Your task to perform on an android device: What is the recent news? Image 0: 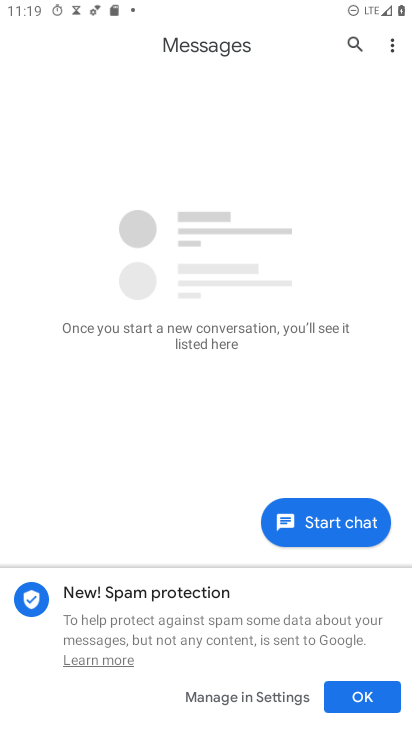
Step 0: press home button
Your task to perform on an android device: What is the recent news? Image 1: 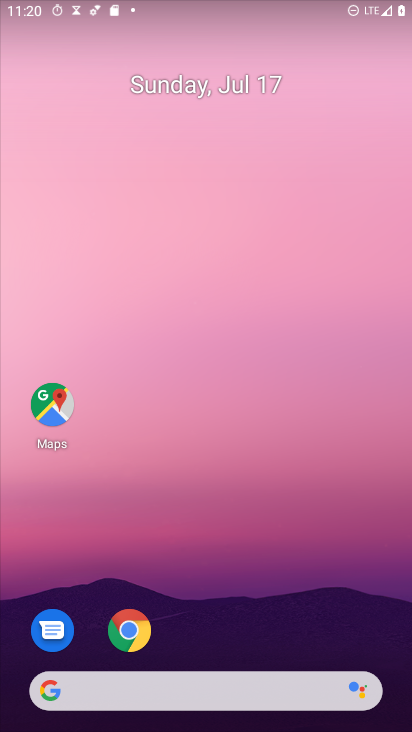
Step 1: drag from (152, 701) to (344, 2)
Your task to perform on an android device: What is the recent news? Image 2: 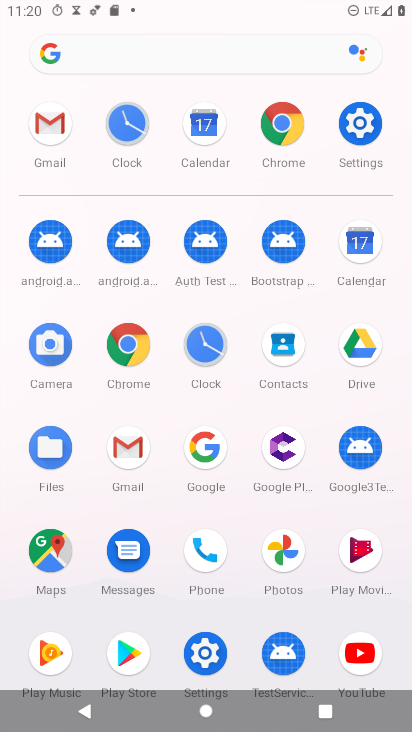
Step 2: click (142, 341)
Your task to perform on an android device: What is the recent news? Image 3: 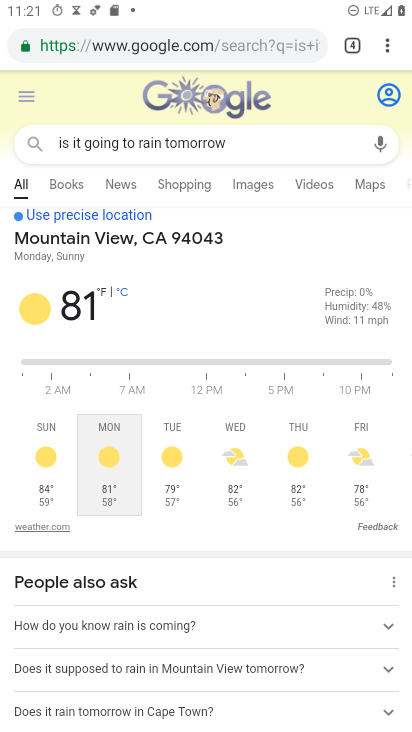
Step 3: click (203, 43)
Your task to perform on an android device: What is the recent news? Image 4: 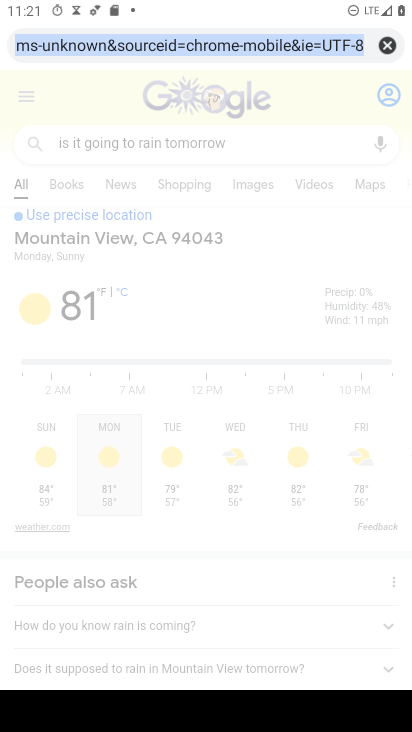
Step 4: type "recent news"
Your task to perform on an android device: What is the recent news? Image 5: 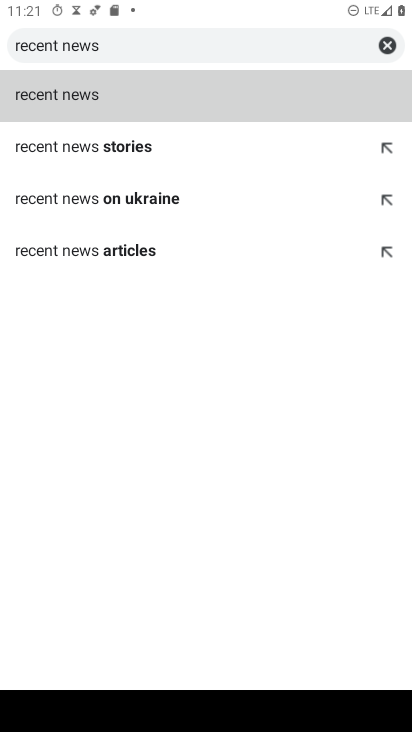
Step 5: click (136, 82)
Your task to perform on an android device: What is the recent news? Image 6: 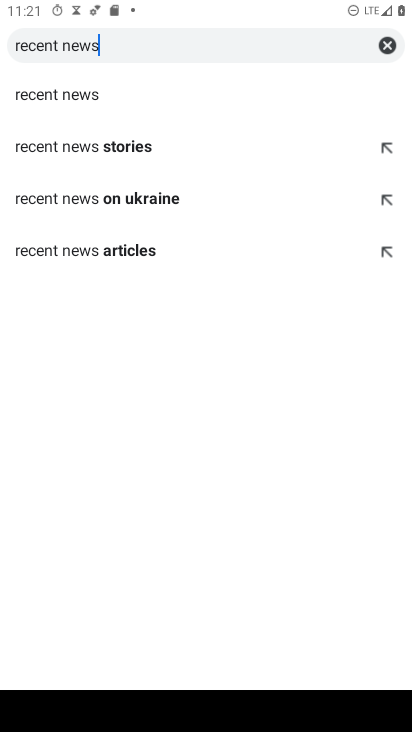
Step 6: click (136, 82)
Your task to perform on an android device: What is the recent news? Image 7: 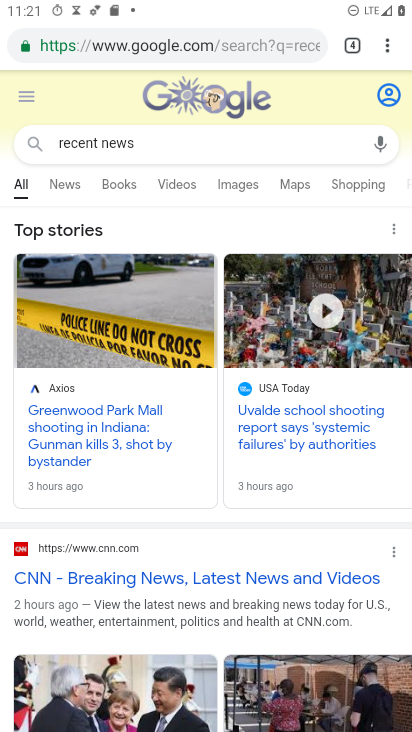
Step 7: task complete